Your task to perform on an android device: allow cookies in the chrome app Image 0: 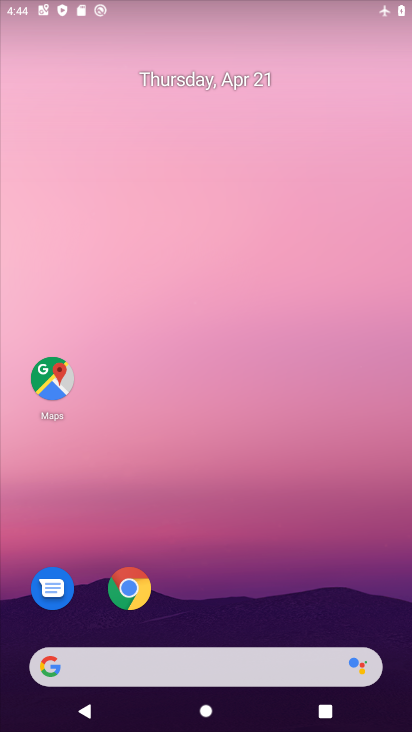
Step 0: drag from (196, 614) to (295, 137)
Your task to perform on an android device: allow cookies in the chrome app Image 1: 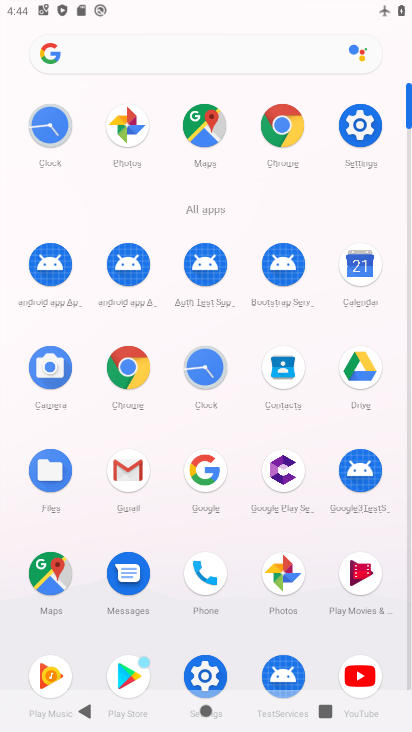
Step 1: click (292, 115)
Your task to perform on an android device: allow cookies in the chrome app Image 2: 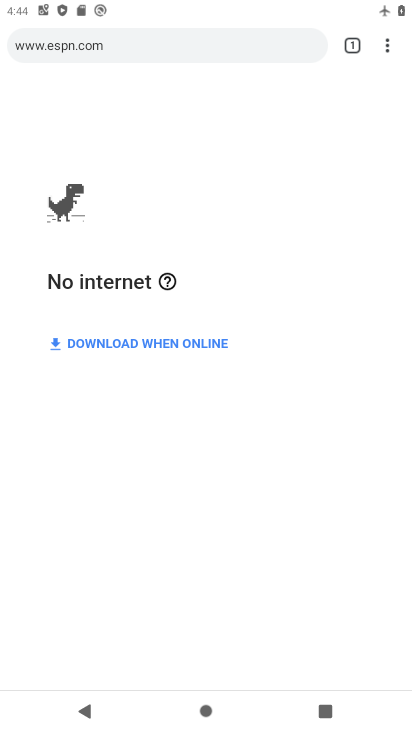
Step 2: drag from (390, 43) to (237, 512)
Your task to perform on an android device: allow cookies in the chrome app Image 3: 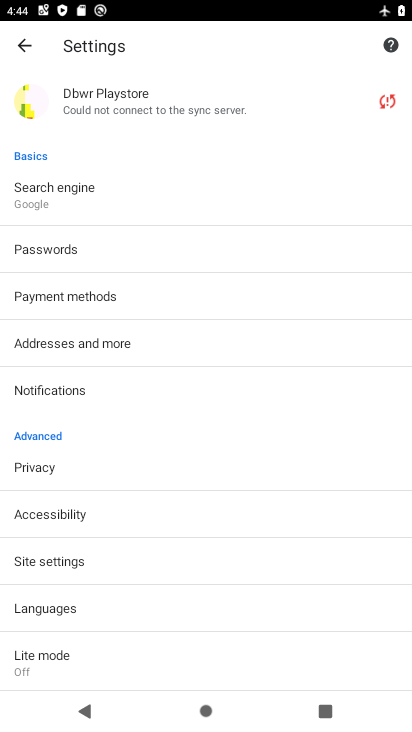
Step 3: click (72, 562)
Your task to perform on an android device: allow cookies in the chrome app Image 4: 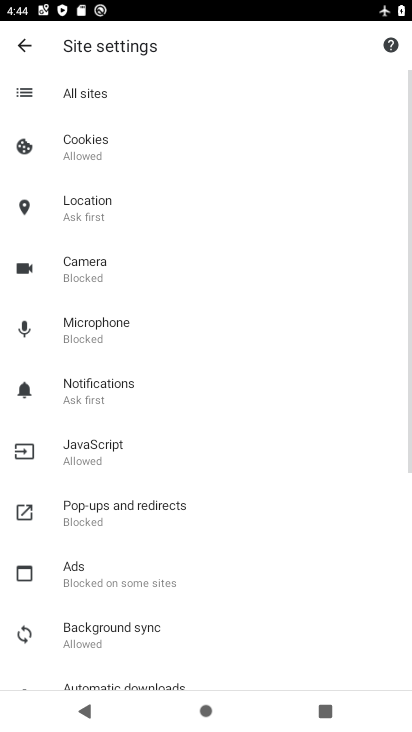
Step 4: click (98, 150)
Your task to perform on an android device: allow cookies in the chrome app Image 5: 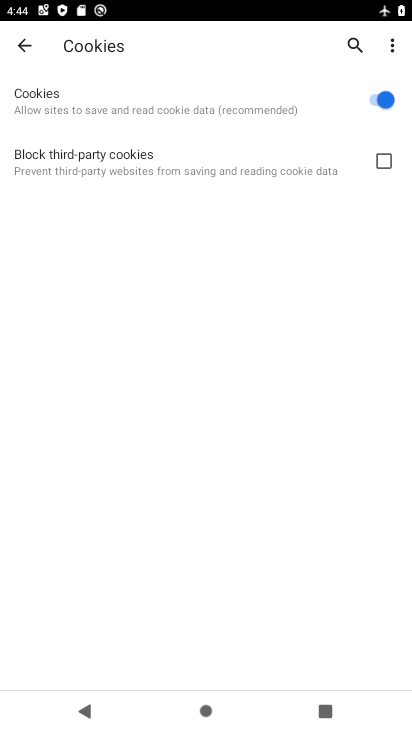
Step 5: task complete